Your task to perform on an android device: change the upload size in google photos Image 0: 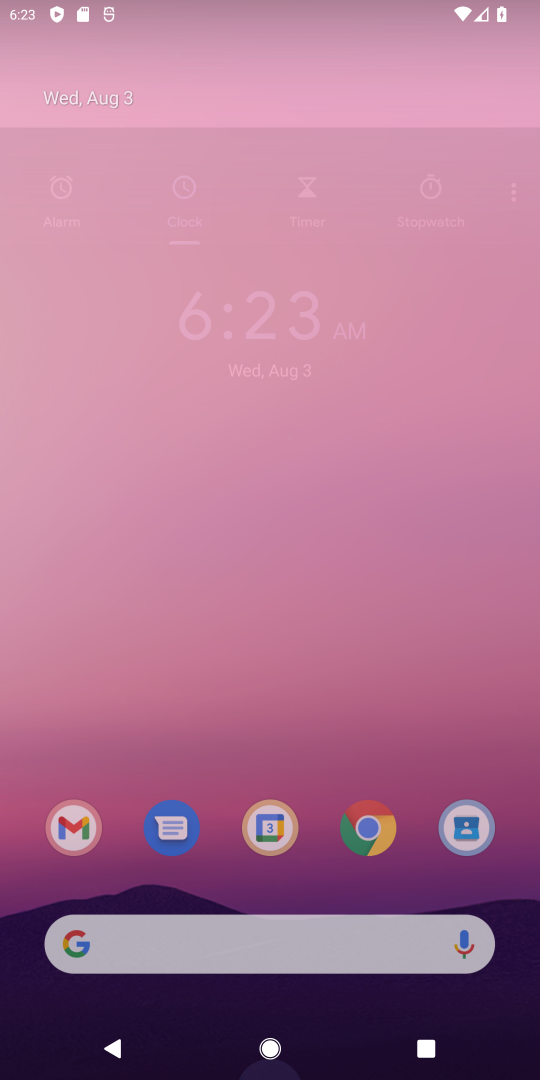
Step 0: press home button
Your task to perform on an android device: change the upload size in google photos Image 1: 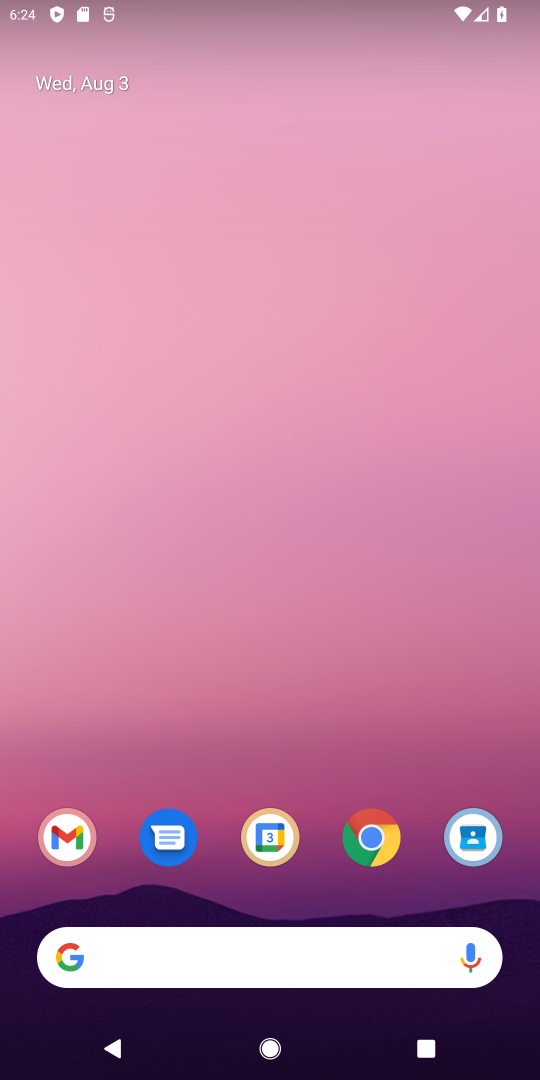
Step 1: drag from (331, 764) to (356, 177)
Your task to perform on an android device: change the upload size in google photos Image 2: 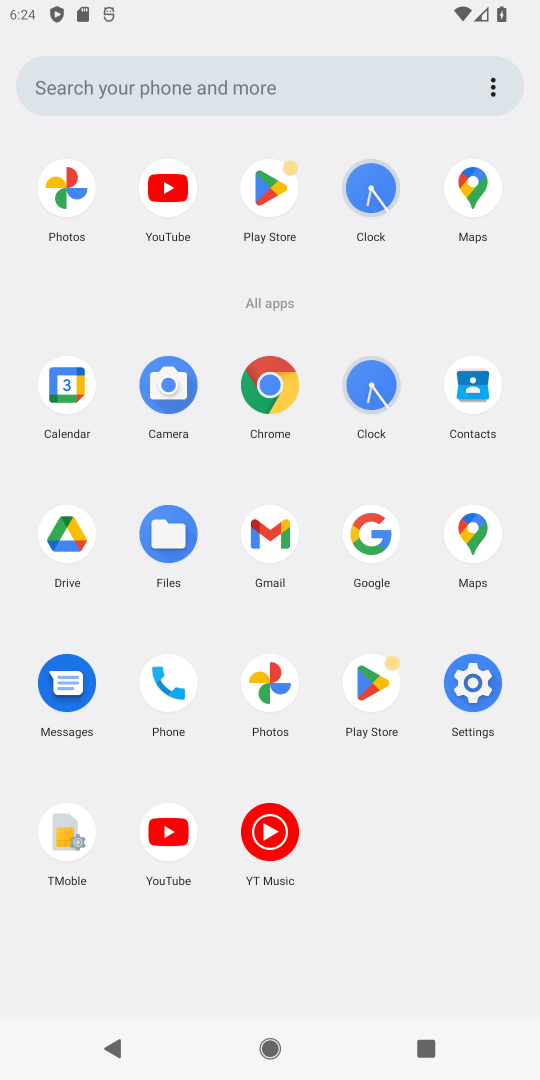
Step 2: click (269, 678)
Your task to perform on an android device: change the upload size in google photos Image 3: 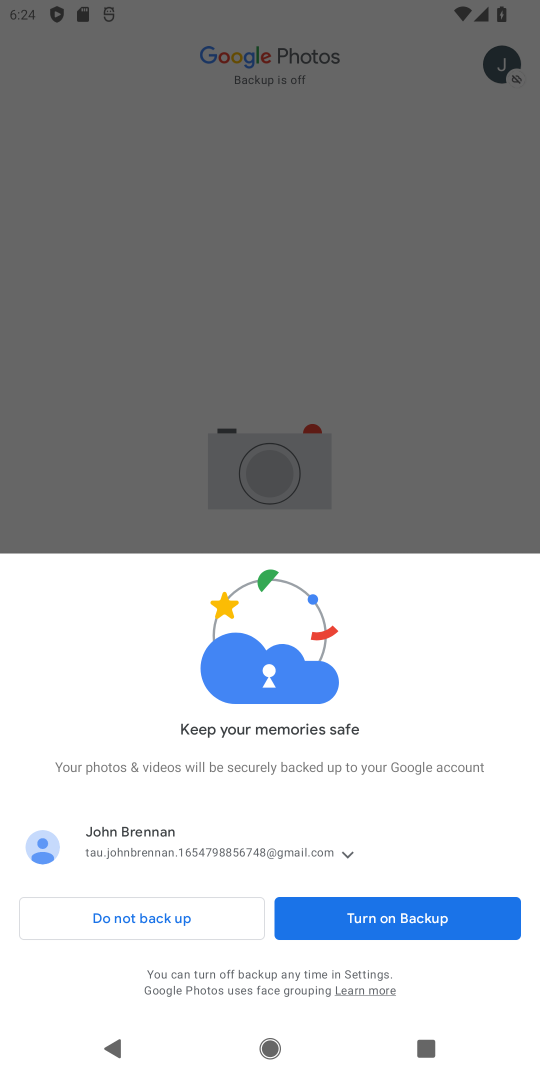
Step 3: click (427, 922)
Your task to perform on an android device: change the upload size in google photos Image 4: 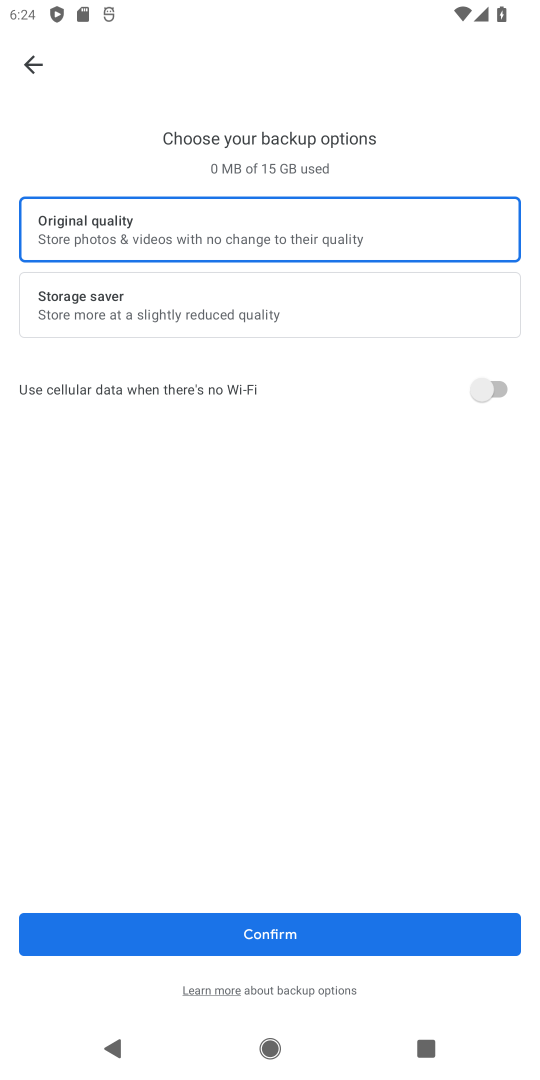
Step 4: click (291, 923)
Your task to perform on an android device: change the upload size in google photos Image 5: 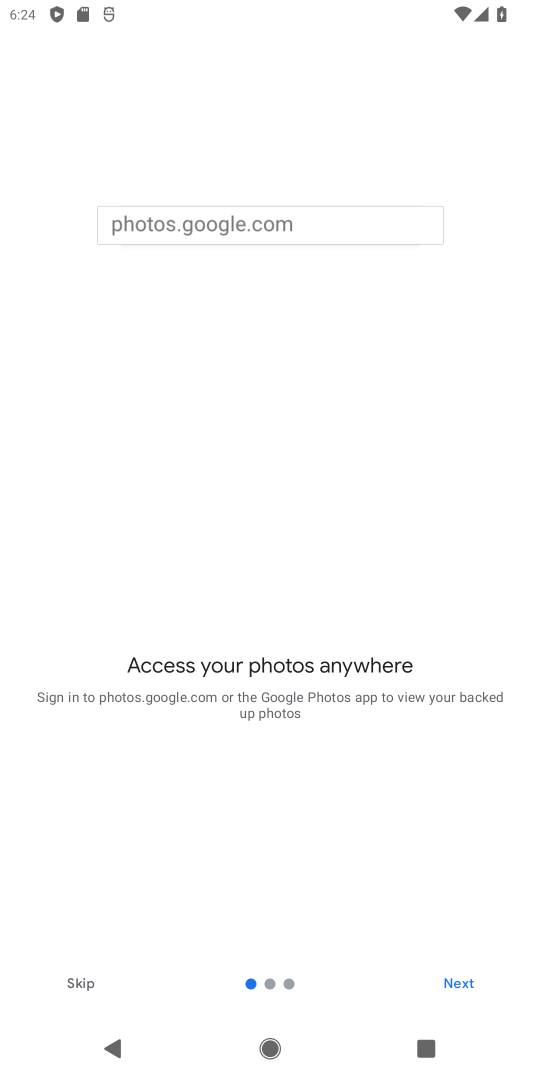
Step 5: task complete